Your task to perform on an android device: open app "Messages" (install if not already installed) and enter user name: "Hersey@inbox.com" and password: "facings" Image 0: 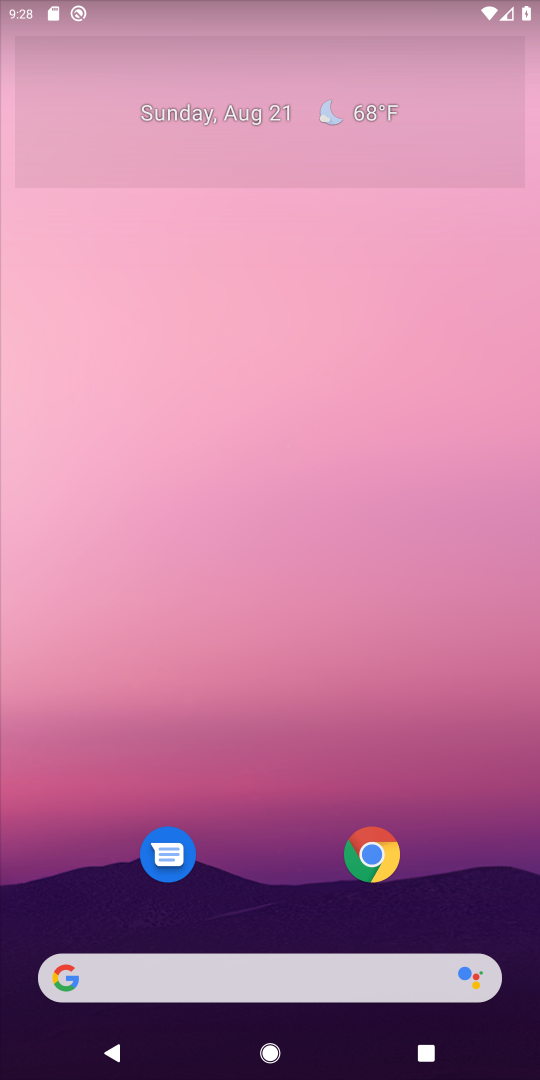
Step 0: press home button
Your task to perform on an android device: open app "Messages" (install if not already installed) and enter user name: "Hersey@inbox.com" and password: "facings" Image 1: 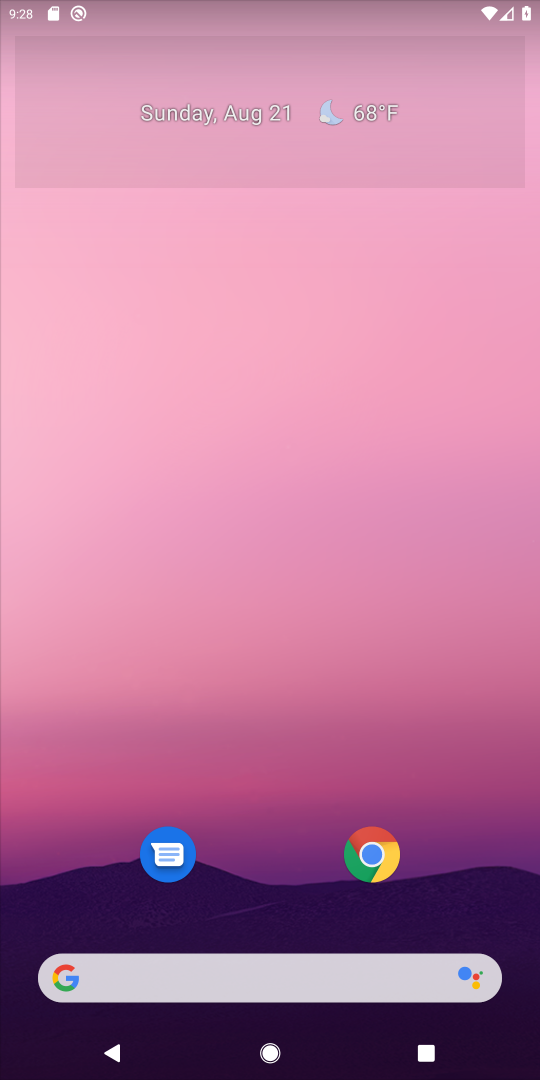
Step 1: drag from (313, 768) to (330, 280)
Your task to perform on an android device: open app "Messages" (install if not already installed) and enter user name: "Hersey@inbox.com" and password: "facings" Image 2: 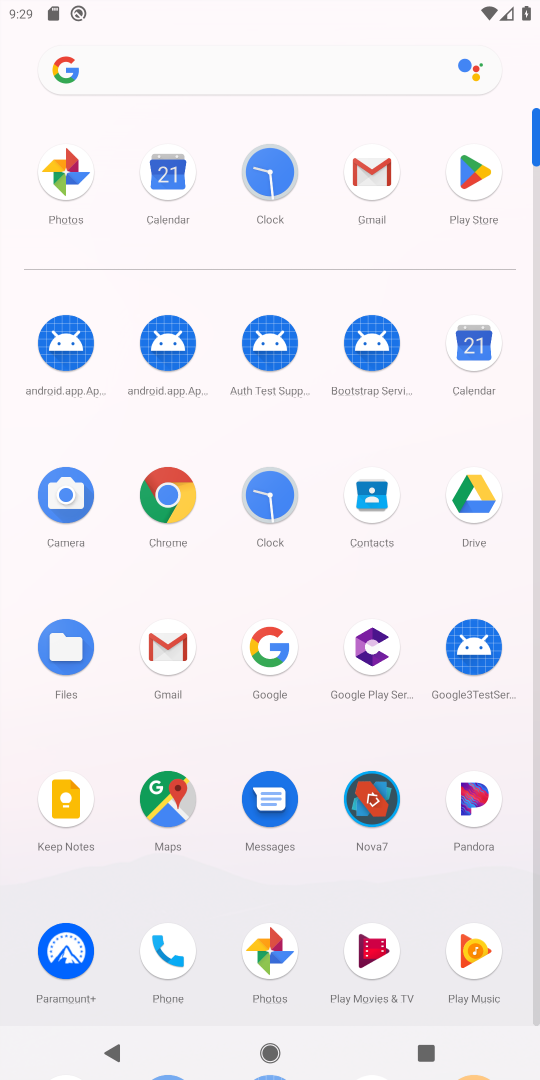
Step 2: click (471, 203)
Your task to perform on an android device: open app "Messages" (install if not already installed) and enter user name: "Hersey@inbox.com" and password: "facings" Image 3: 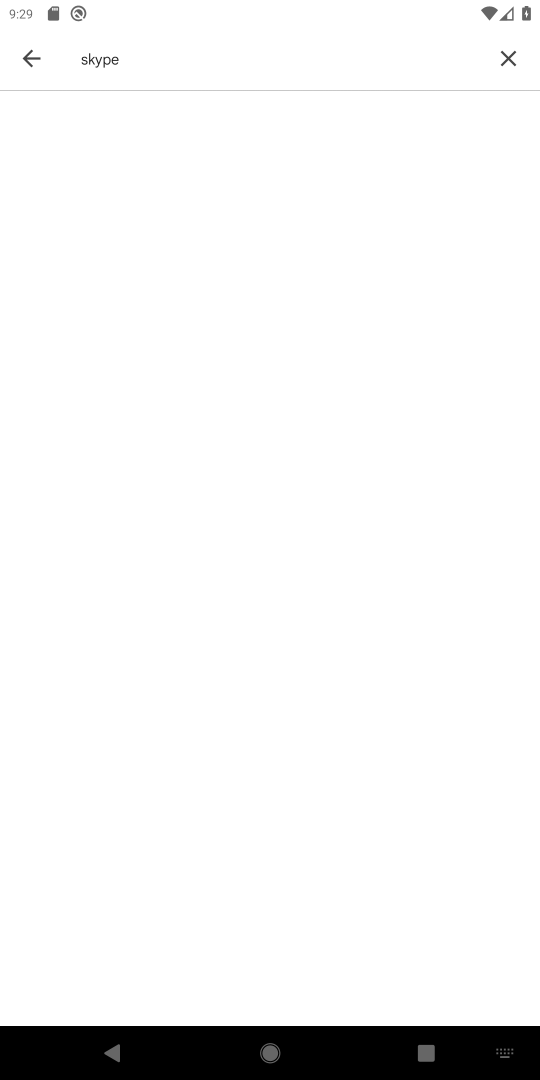
Step 3: click (513, 60)
Your task to perform on an android device: open app "Messages" (install if not already installed) and enter user name: "Hersey@inbox.com" and password: "facings" Image 4: 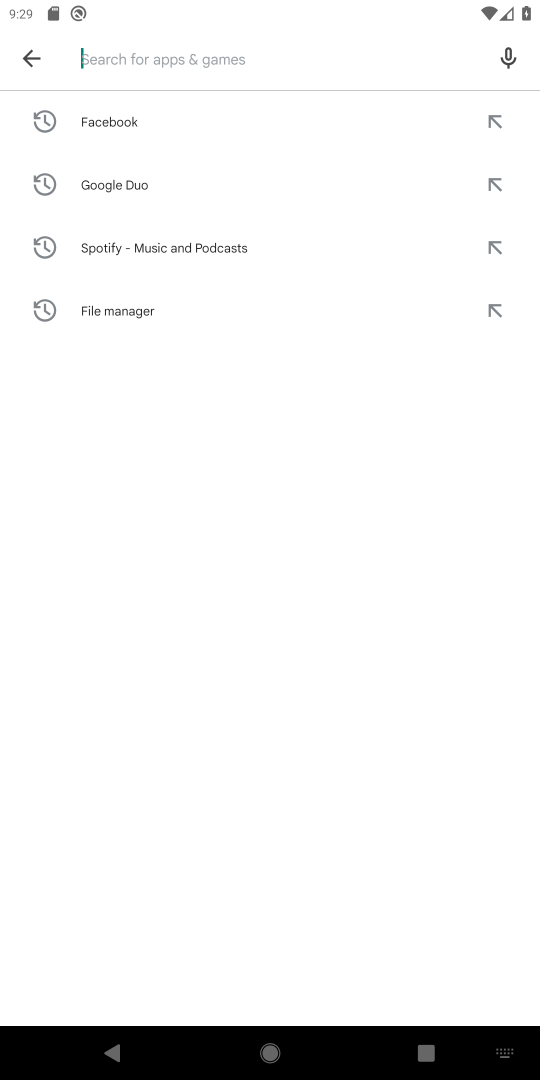
Step 4: type "messanger"
Your task to perform on an android device: open app "Messages" (install if not already installed) and enter user name: "Hersey@inbox.com" and password: "facings" Image 5: 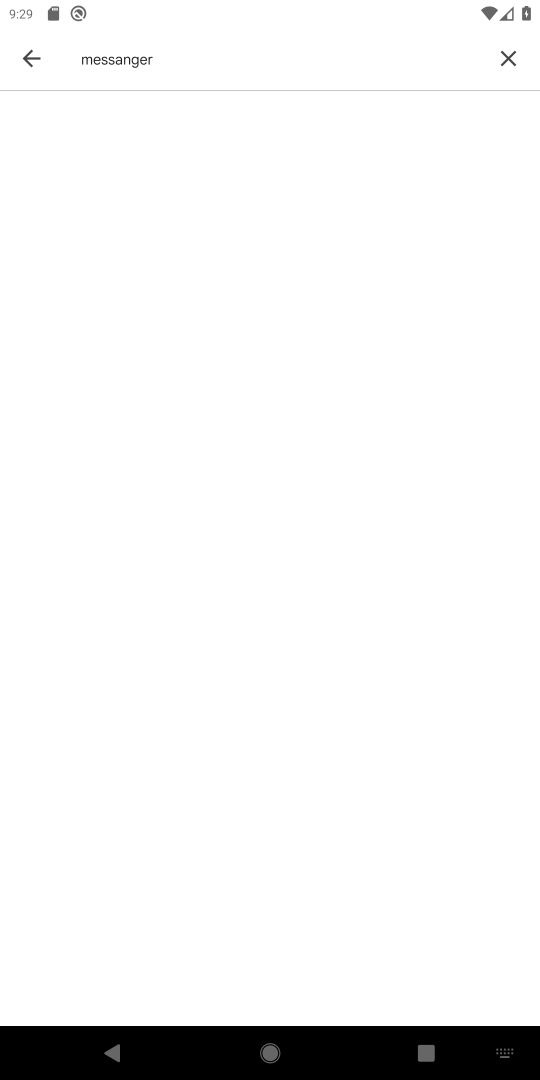
Step 5: task complete